Your task to perform on an android device: Open notification settings Image 0: 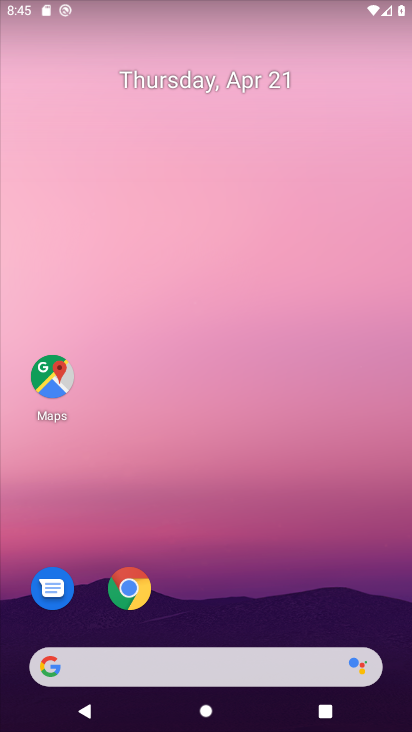
Step 0: drag from (260, 474) to (186, 4)
Your task to perform on an android device: Open notification settings Image 1: 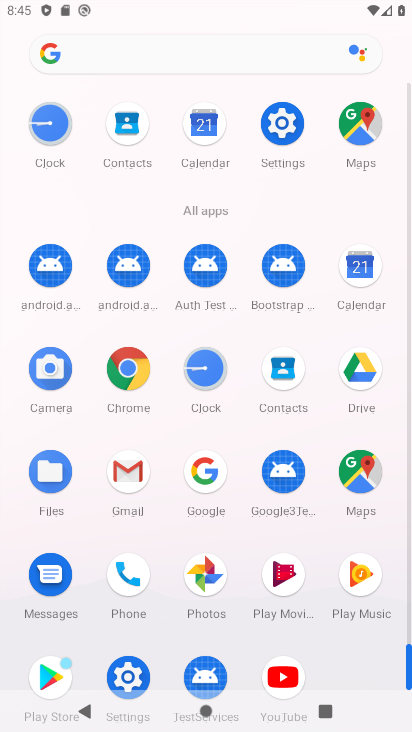
Step 1: click (123, 674)
Your task to perform on an android device: Open notification settings Image 2: 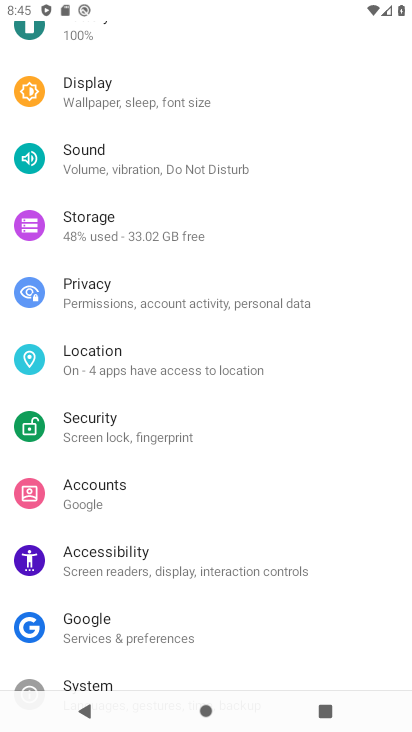
Step 2: drag from (320, 258) to (348, 659)
Your task to perform on an android device: Open notification settings Image 3: 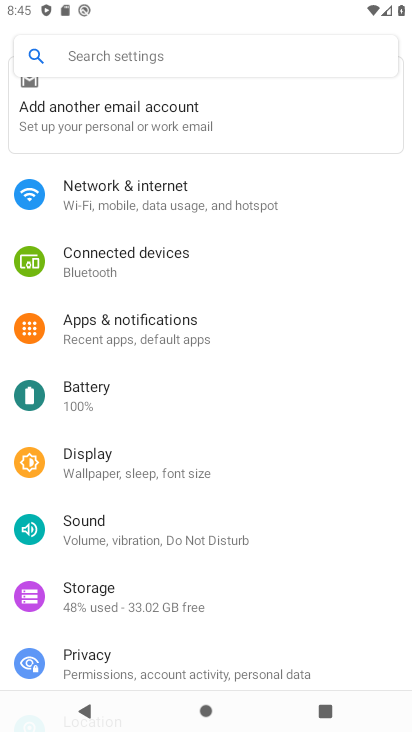
Step 3: click (174, 328)
Your task to perform on an android device: Open notification settings Image 4: 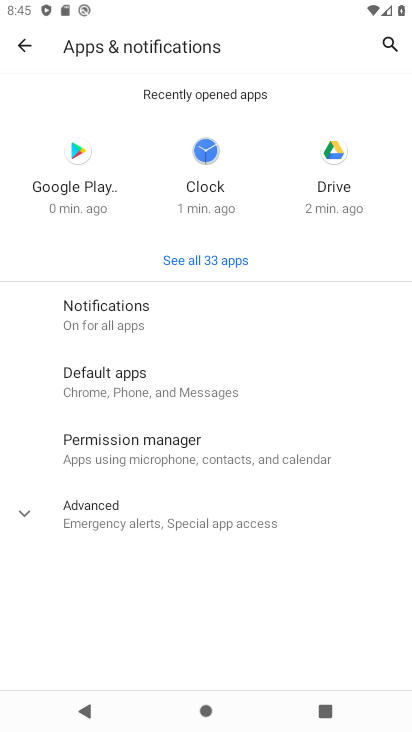
Step 4: click (131, 319)
Your task to perform on an android device: Open notification settings Image 5: 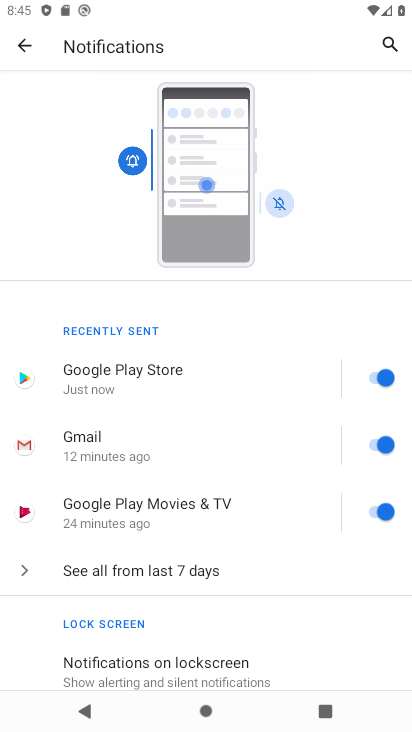
Step 5: drag from (269, 452) to (296, 101)
Your task to perform on an android device: Open notification settings Image 6: 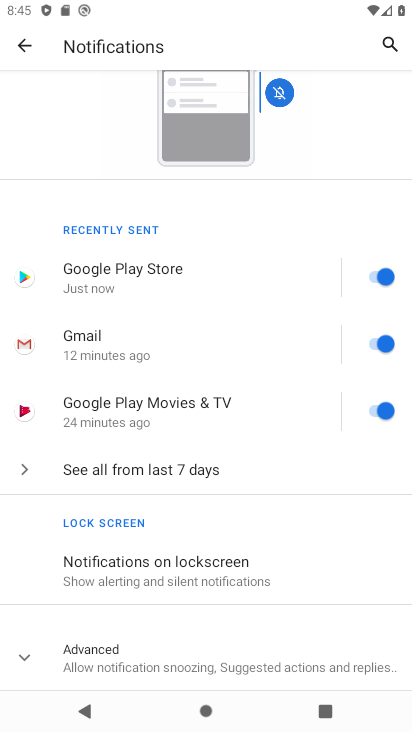
Step 6: drag from (270, 525) to (282, 189)
Your task to perform on an android device: Open notification settings Image 7: 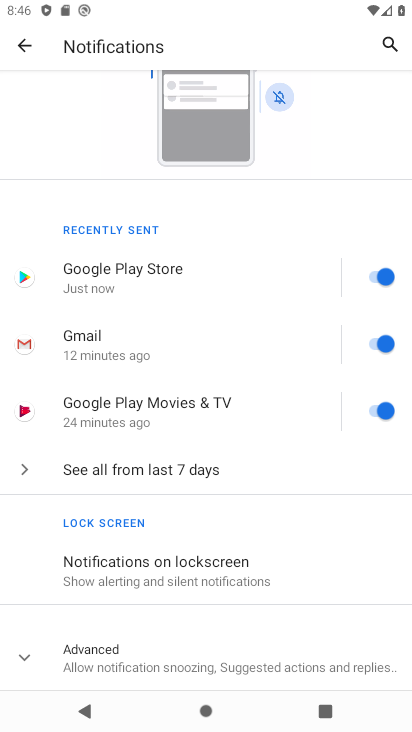
Step 7: click (23, 654)
Your task to perform on an android device: Open notification settings Image 8: 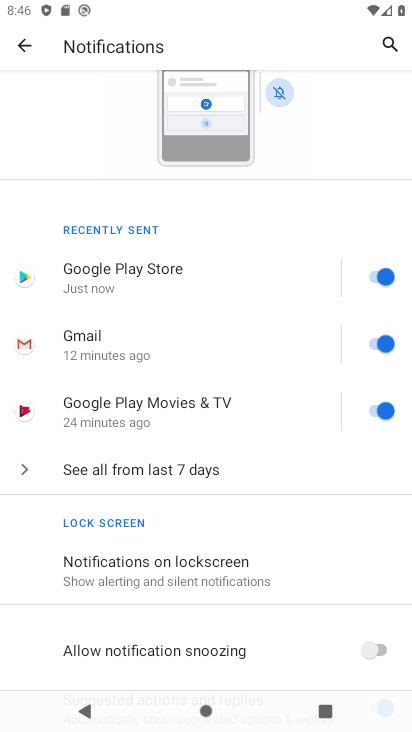
Step 8: drag from (271, 513) to (298, 103)
Your task to perform on an android device: Open notification settings Image 9: 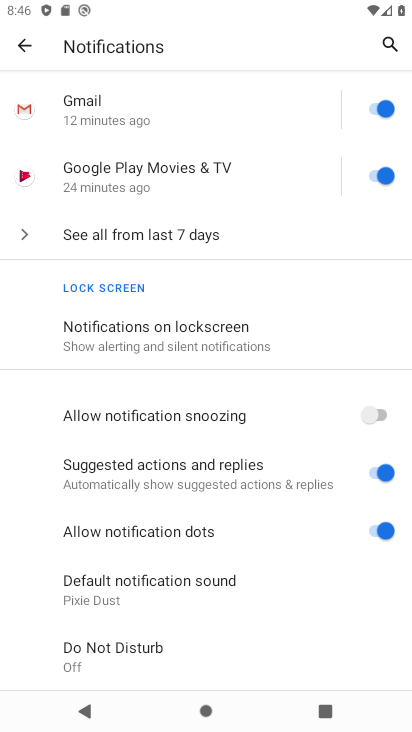
Step 9: drag from (247, 570) to (282, 224)
Your task to perform on an android device: Open notification settings Image 10: 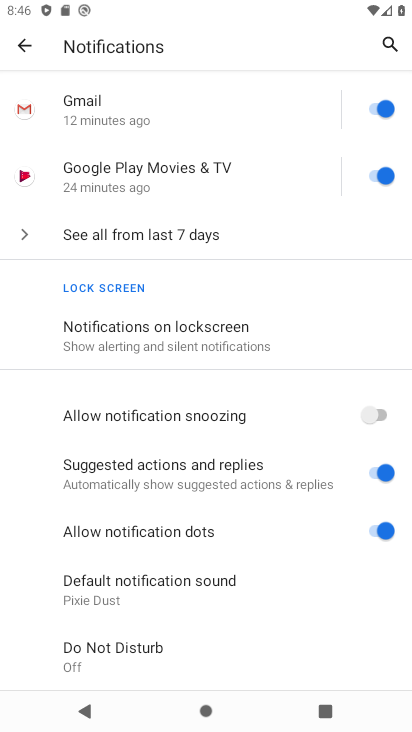
Step 10: drag from (279, 232) to (278, 575)
Your task to perform on an android device: Open notification settings Image 11: 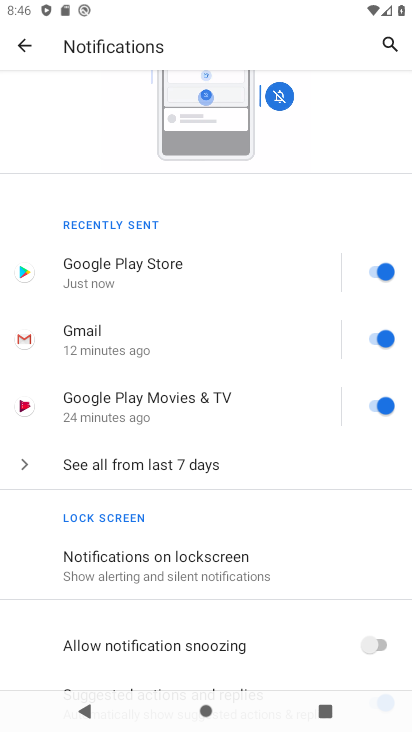
Step 11: drag from (236, 326) to (261, 595)
Your task to perform on an android device: Open notification settings Image 12: 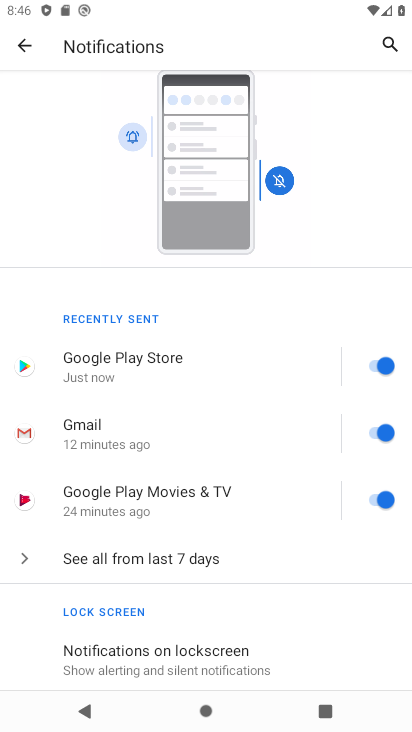
Step 12: drag from (260, 652) to (278, 346)
Your task to perform on an android device: Open notification settings Image 13: 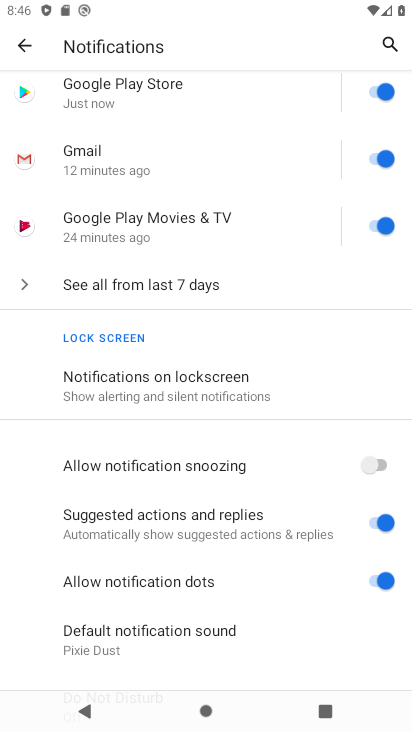
Step 13: click (375, 222)
Your task to perform on an android device: Open notification settings Image 14: 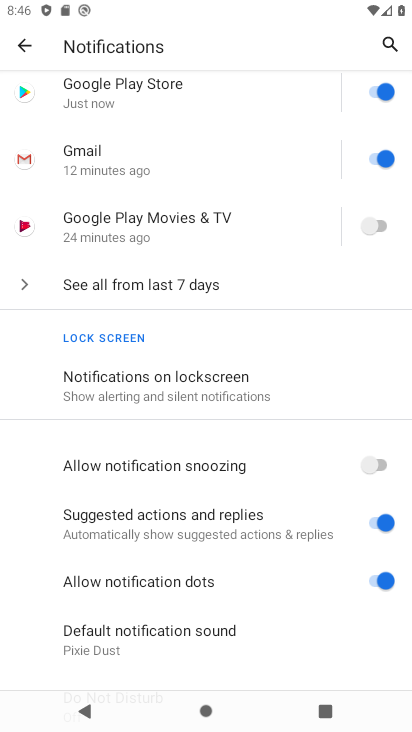
Step 14: task complete